Your task to perform on an android device: Play the last video I watched on Youtube Image 0: 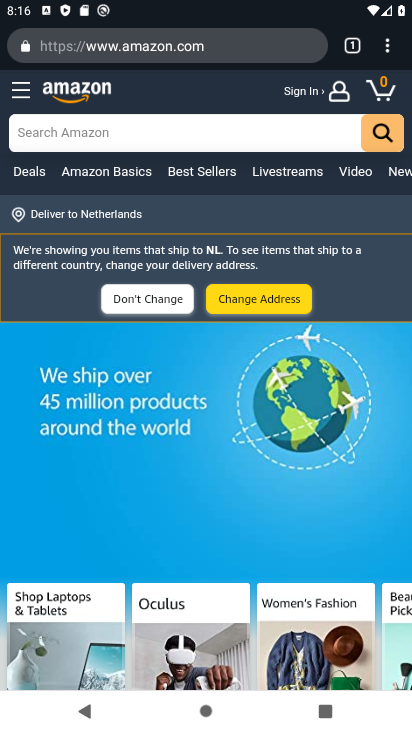
Step 0: press home button
Your task to perform on an android device: Play the last video I watched on Youtube Image 1: 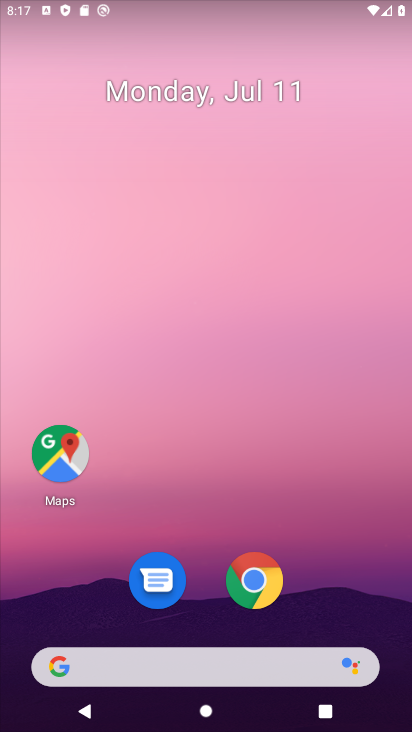
Step 1: drag from (338, 571) to (241, 92)
Your task to perform on an android device: Play the last video I watched on Youtube Image 2: 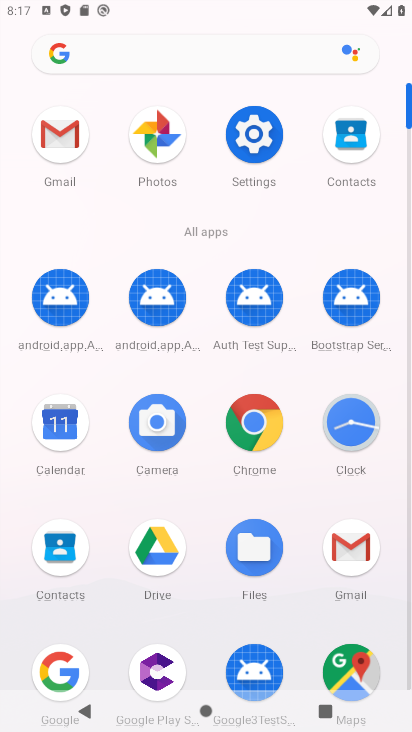
Step 2: drag from (191, 585) to (197, 253)
Your task to perform on an android device: Play the last video I watched on Youtube Image 3: 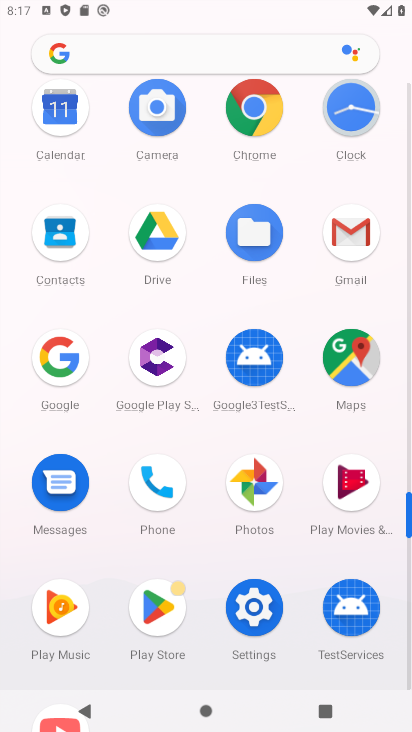
Step 3: drag from (210, 564) to (211, 395)
Your task to perform on an android device: Play the last video I watched on Youtube Image 4: 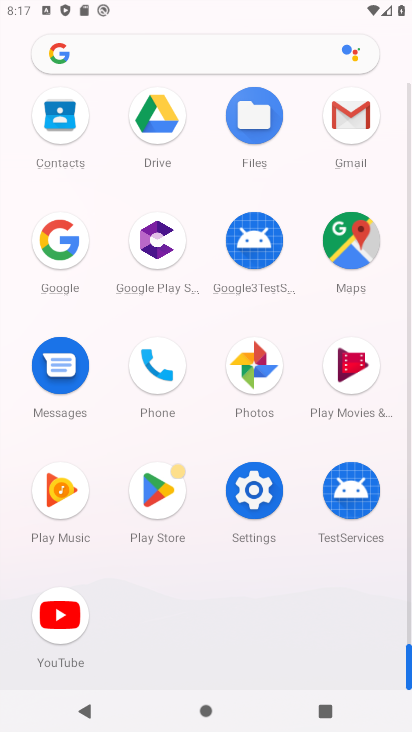
Step 4: click (69, 598)
Your task to perform on an android device: Play the last video I watched on Youtube Image 5: 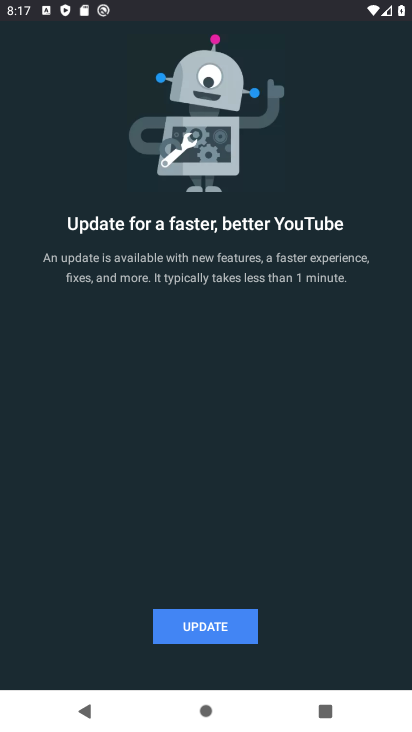
Step 5: click (198, 628)
Your task to perform on an android device: Play the last video I watched on Youtube Image 6: 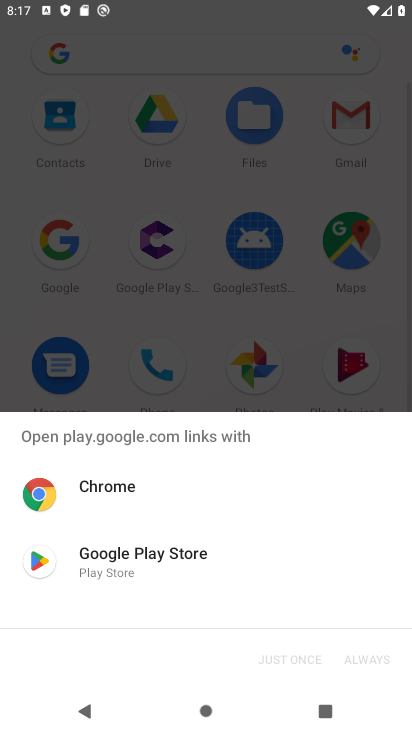
Step 6: click (144, 555)
Your task to perform on an android device: Play the last video I watched on Youtube Image 7: 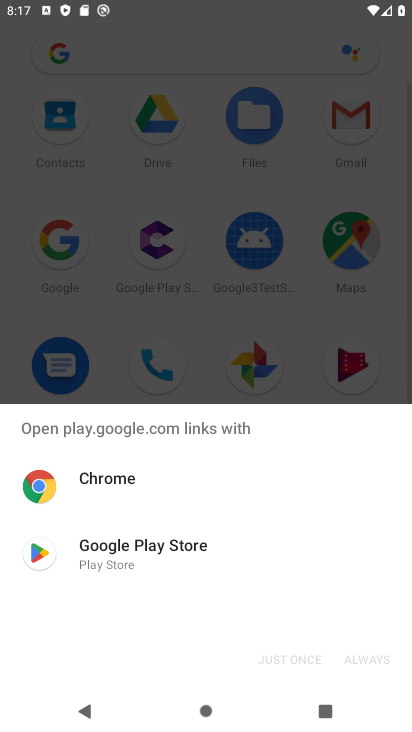
Step 7: click (148, 559)
Your task to perform on an android device: Play the last video I watched on Youtube Image 8: 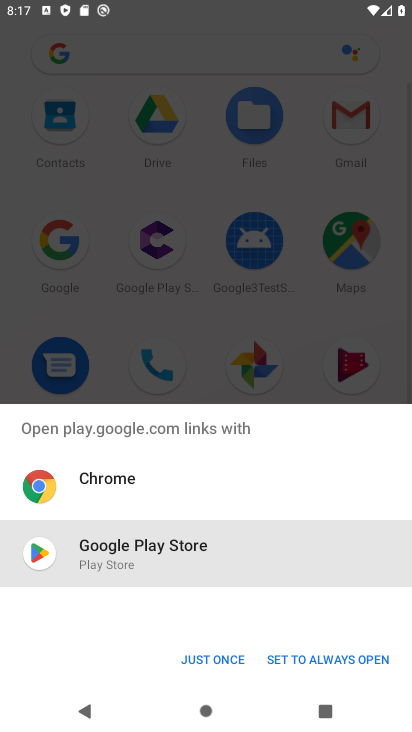
Step 8: click (193, 656)
Your task to perform on an android device: Play the last video I watched on Youtube Image 9: 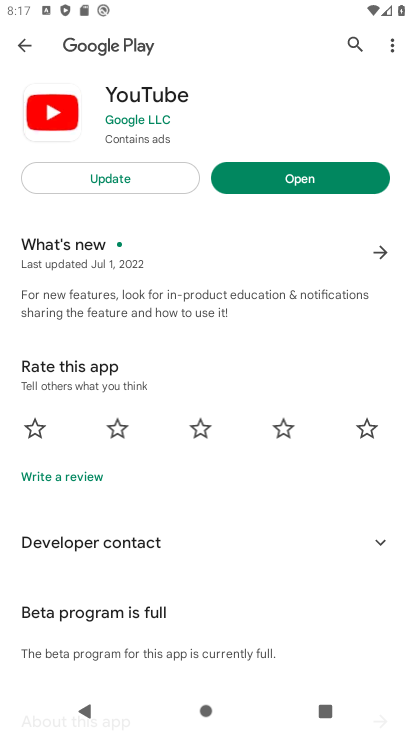
Step 9: click (334, 185)
Your task to perform on an android device: Play the last video I watched on Youtube Image 10: 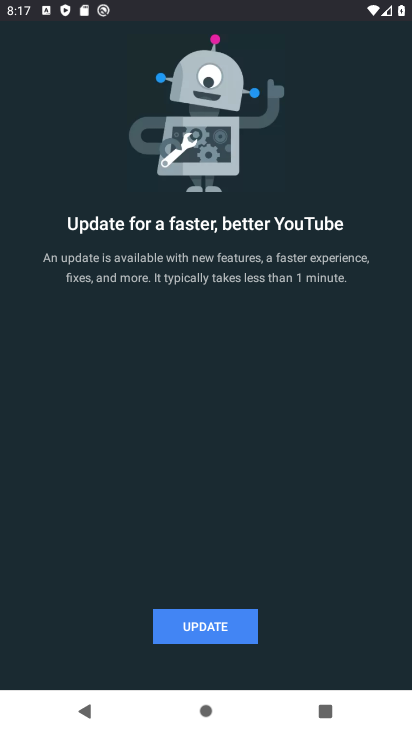
Step 10: click (238, 628)
Your task to perform on an android device: Play the last video I watched on Youtube Image 11: 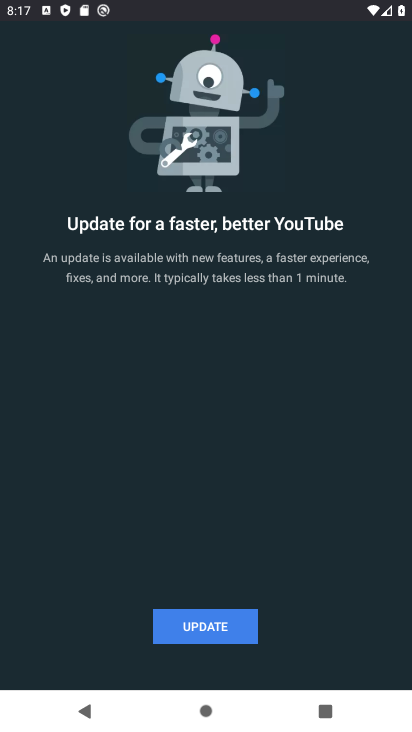
Step 11: click (238, 628)
Your task to perform on an android device: Play the last video I watched on Youtube Image 12: 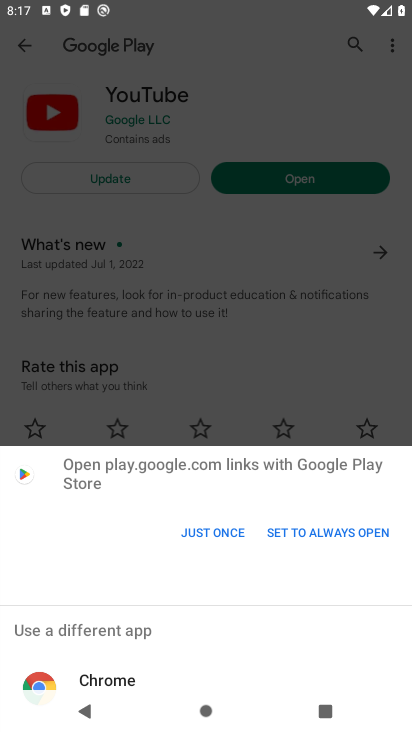
Step 12: click (194, 526)
Your task to perform on an android device: Play the last video I watched on Youtube Image 13: 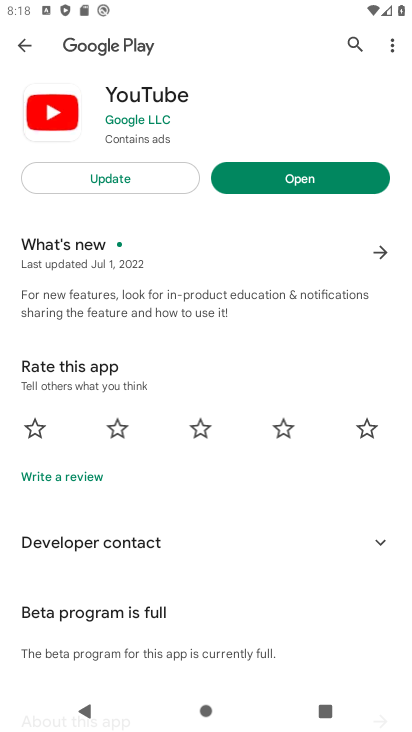
Step 13: click (163, 182)
Your task to perform on an android device: Play the last video I watched on Youtube Image 14: 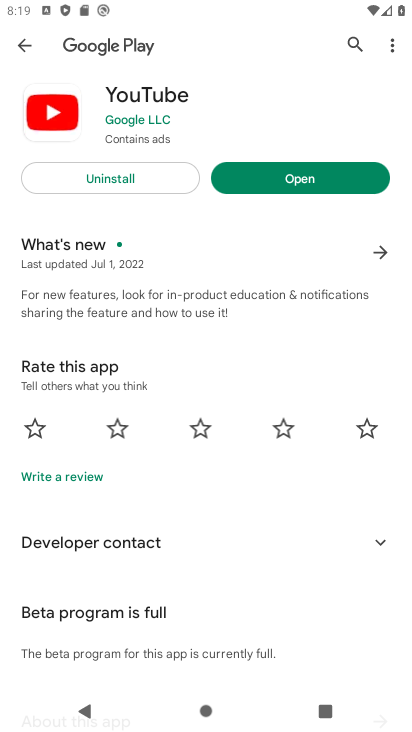
Step 14: click (332, 184)
Your task to perform on an android device: Play the last video I watched on Youtube Image 15: 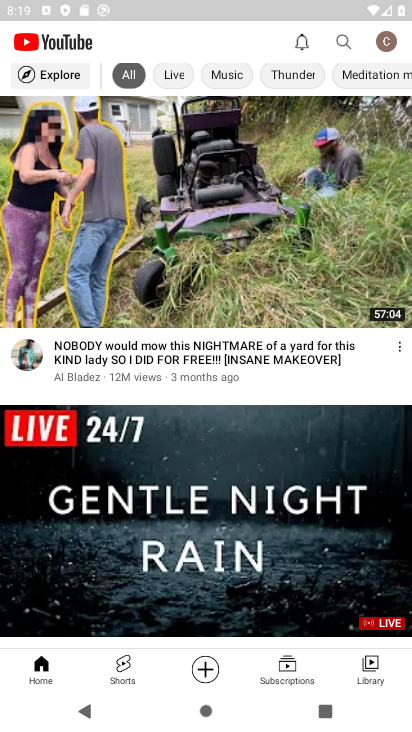
Step 15: click (369, 666)
Your task to perform on an android device: Play the last video I watched on Youtube Image 16: 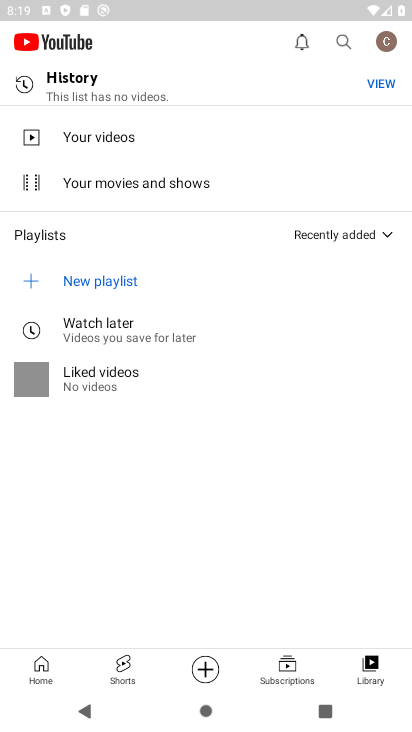
Step 16: task complete